Your task to perform on an android device: turn on the 24-hour format for clock Image 0: 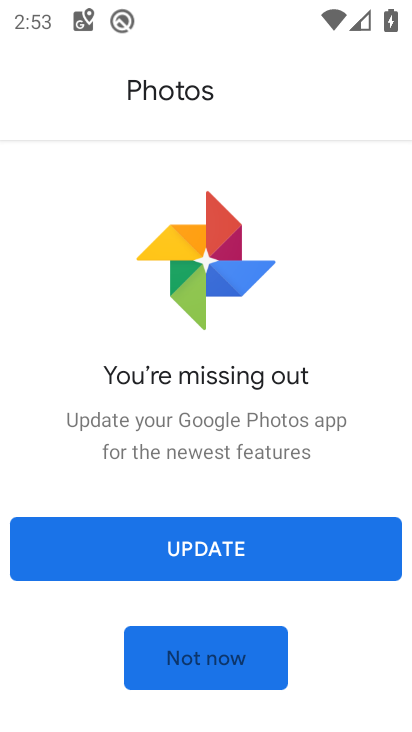
Step 0: press back button
Your task to perform on an android device: turn on the 24-hour format for clock Image 1: 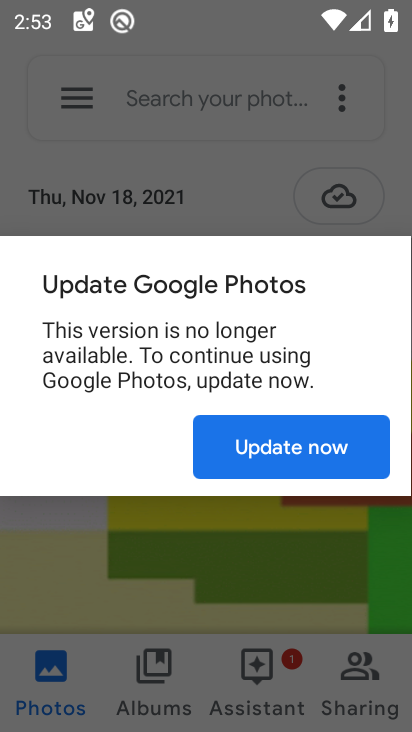
Step 1: press home button
Your task to perform on an android device: turn on the 24-hour format for clock Image 2: 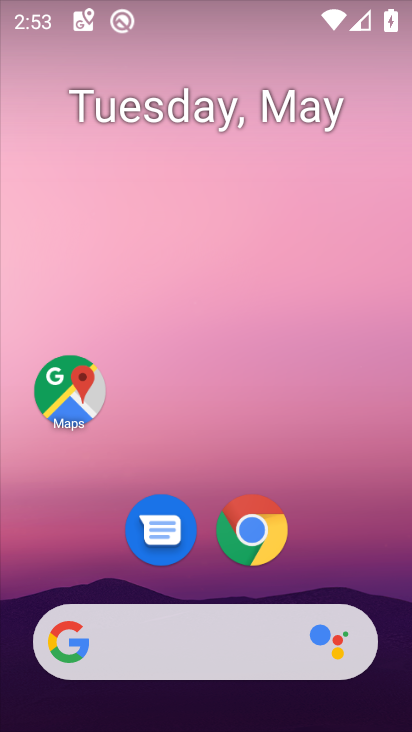
Step 2: drag from (71, 720) to (381, 140)
Your task to perform on an android device: turn on the 24-hour format for clock Image 3: 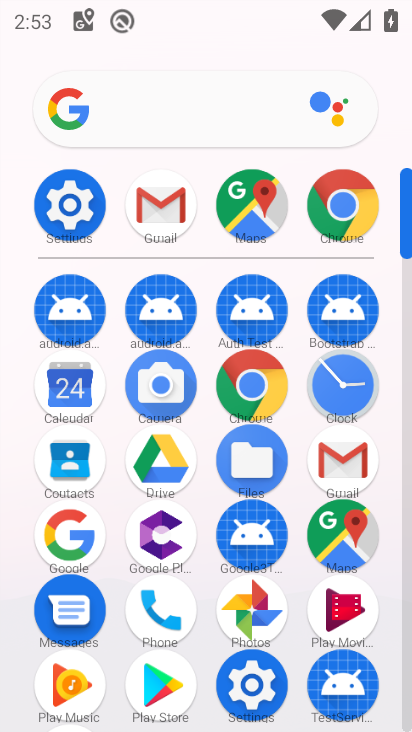
Step 3: click (327, 376)
Your task to perform on an android device: turn on the 24-hour format for clock Image 4: 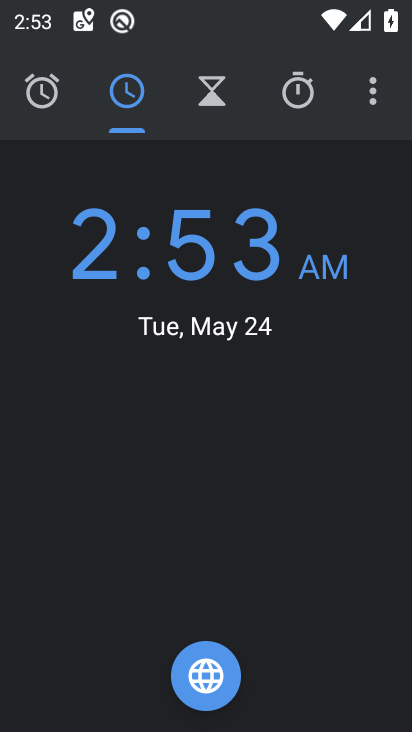
Step 4: click (367, 93)
Your task to perform on an android device: turn on the 24-hour format for clock Image 5: 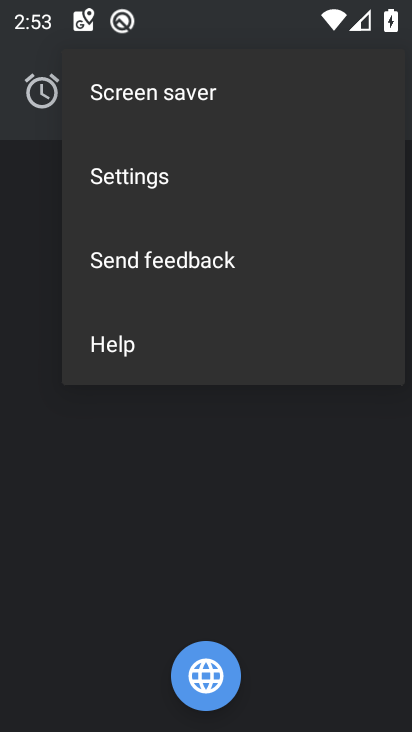
Step 5: click (132, 185)
Your task to perform on an android device: turn on the 24-hour format for clock Image 6: 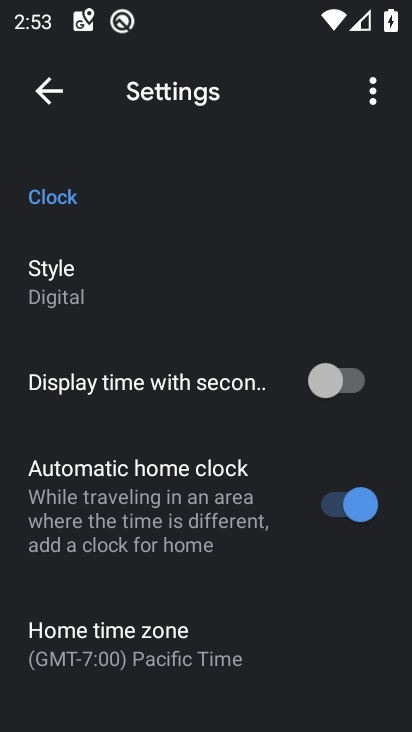
Step 6: drag from (20, 592) to (269, 176)
Your task to perform on an android device: turn on the 24-hour format for clock Image 7: 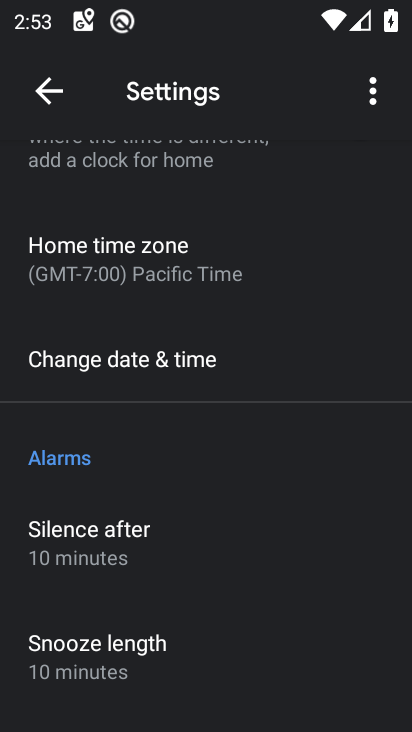
Step 7: click (178, 362)
Your task to perform on an android device: turn on the 24-hour format for clock Image 8: 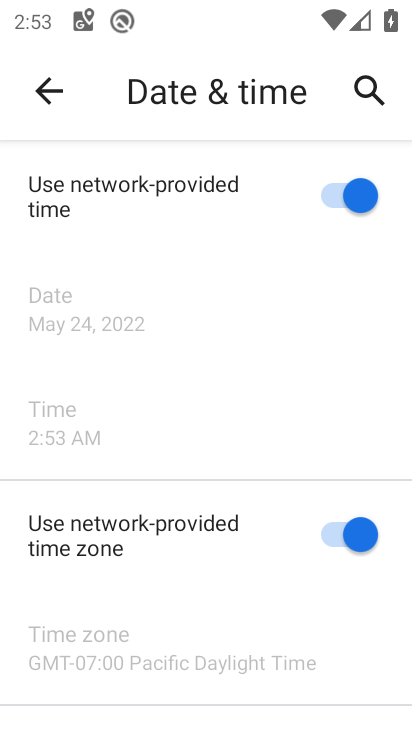
Step 8: drag from (35, 608) to (261, 159)
Your task to perform on an android device: turn on the 24-hour format for clock Image 9: 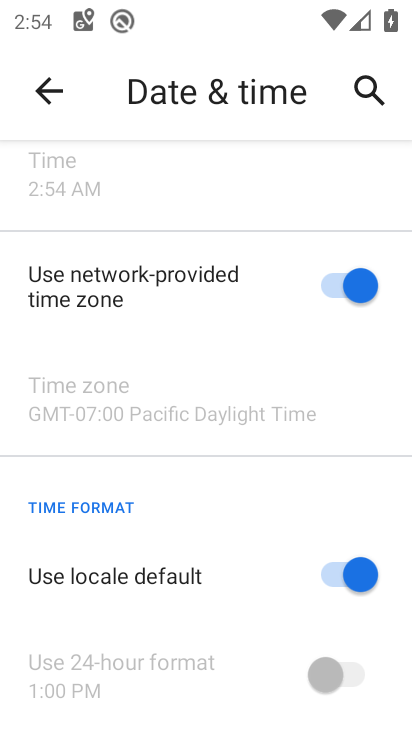
Step 9: drag from (4, 600) to (280, 162)
Your task to perform on an android device: turn on the 24-hour format for clock Image 10: 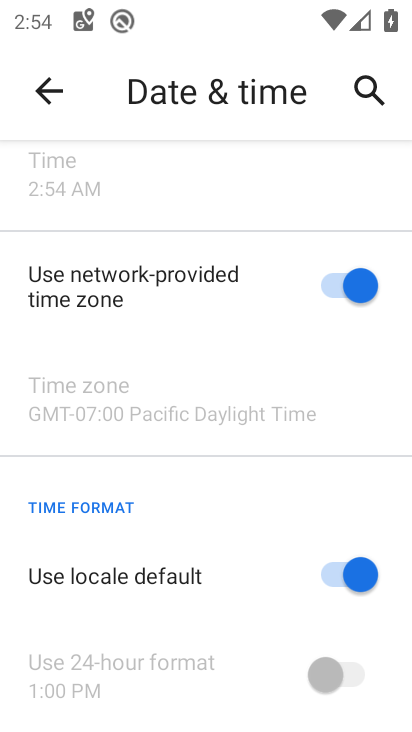
Step 10: click (351, 618)
Your task to perform on an android device: turn on the 24-hour format for clock Image 11: 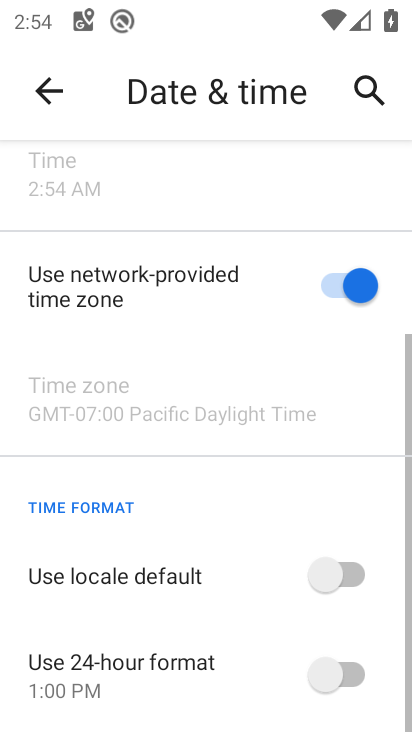
Step 11: click (348, 678)
Your task to perform on an android device: turn on the 24-hour format for clock Image 12: 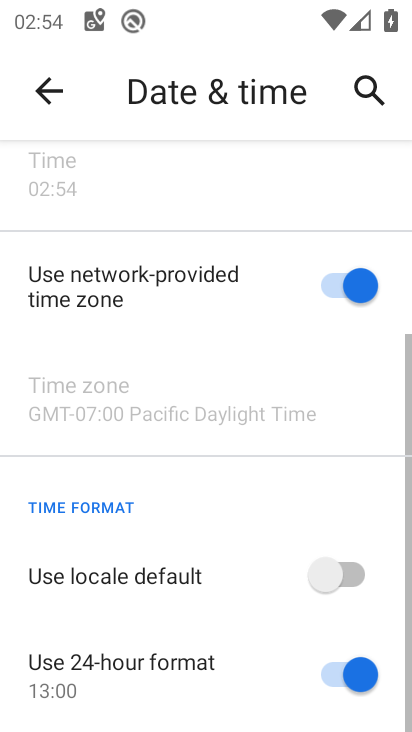
Step 12: task complete